Your task to perform on an android device: change notifications settings Image 0: 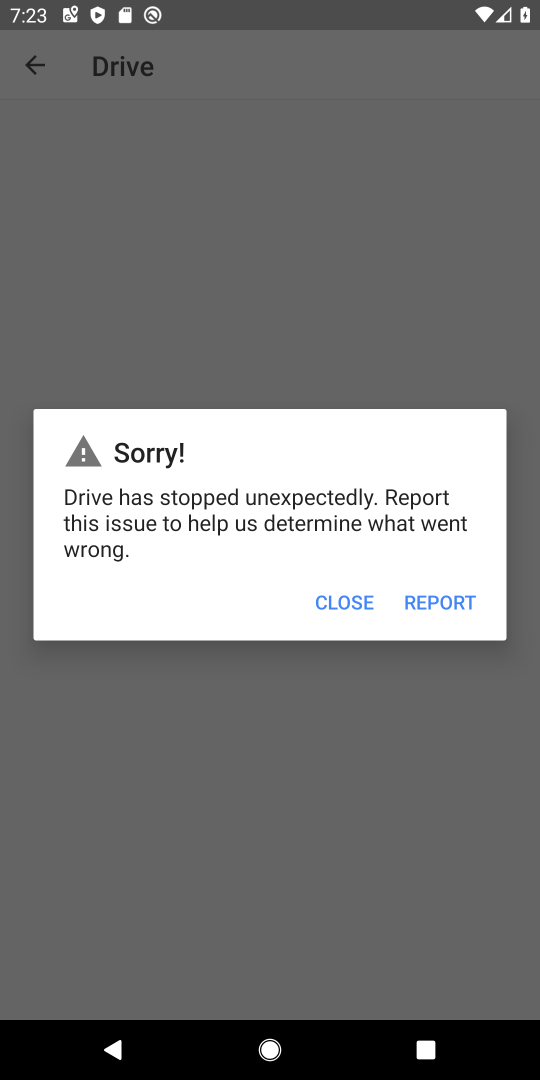
Step 0: press home button
Your task to perform on an android device: change notifications settings Image 1: 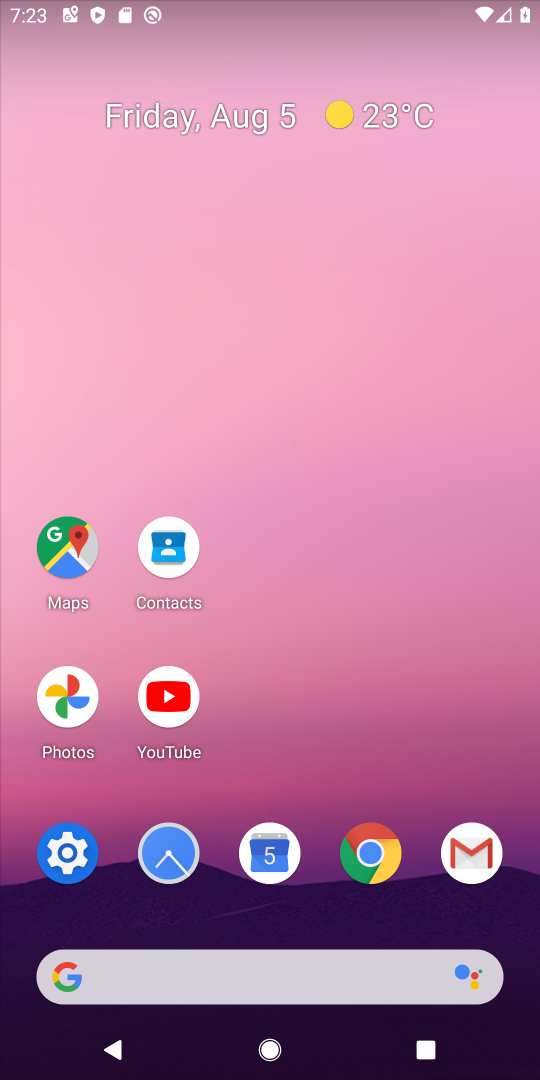
Step 1: click (67, 846)
Your task to perform on an android device: change notifications settings Image 2: 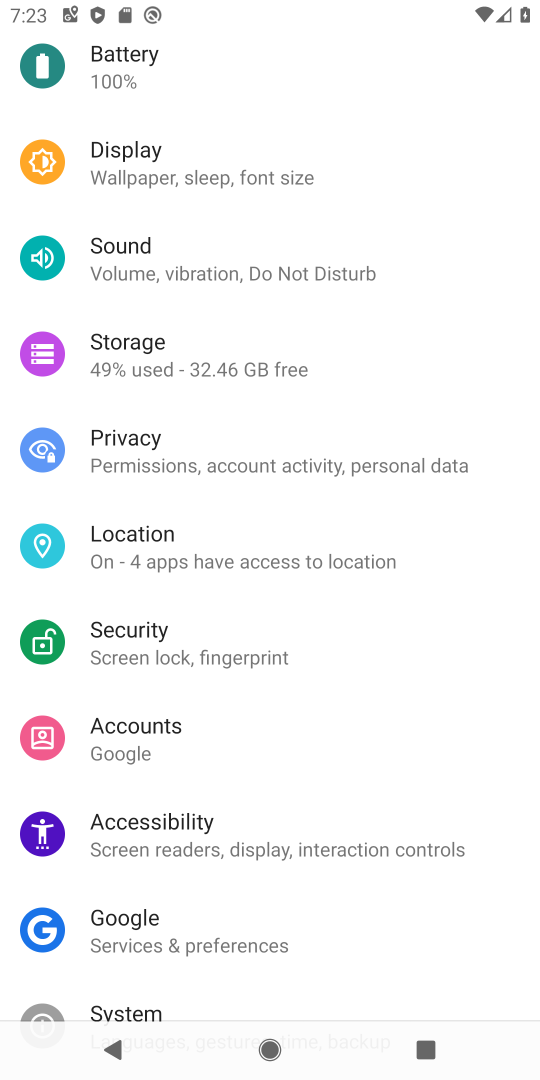
Step 2: drag from (329, 184) to (353, 724)
Your task to perform on an android device: change notifications settings Image 3: 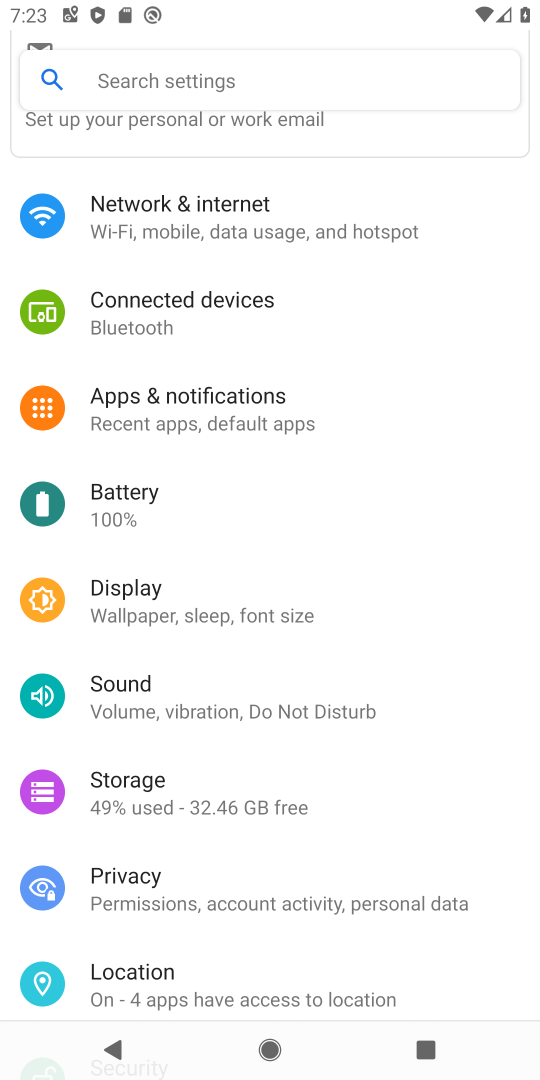
Step 3: click (190, 390)
Your task to perform on an android device: change notifications settings Image 4: 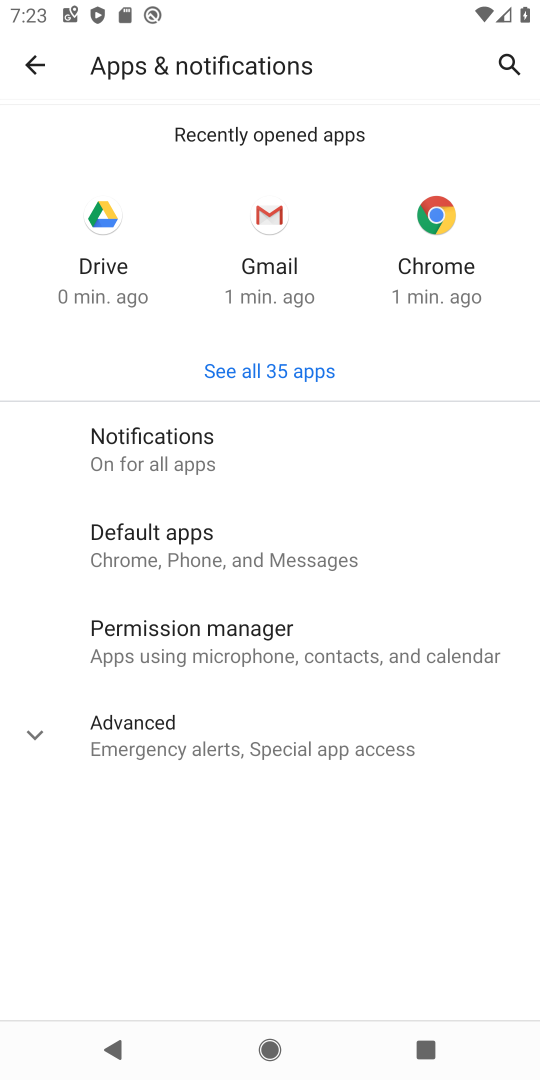
Step 4: click (162, 433)
Your task to perform on an android device: change notifications settings Image 5: 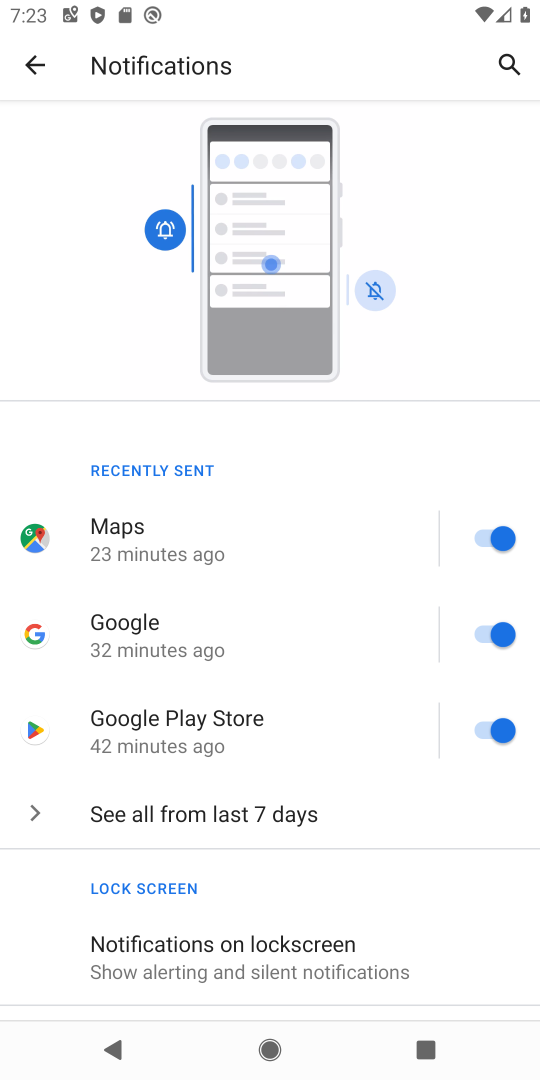
Step 5: click (204, 816)
Your task to perform on an android device: change notifications settings Image 6: 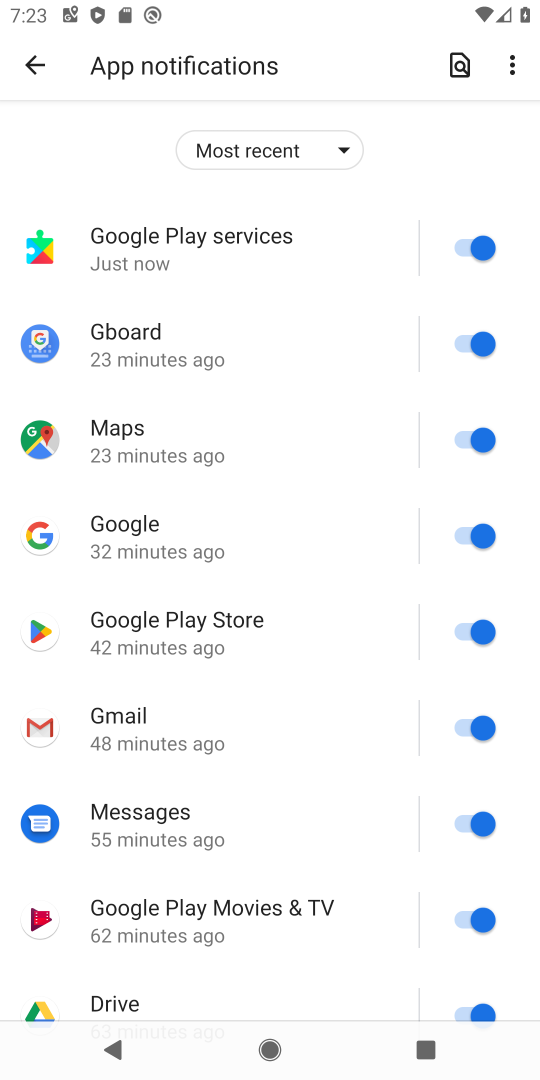
Step 6: click (340, 151)
Your task to perform on an android device: change notifications settings Image 7: 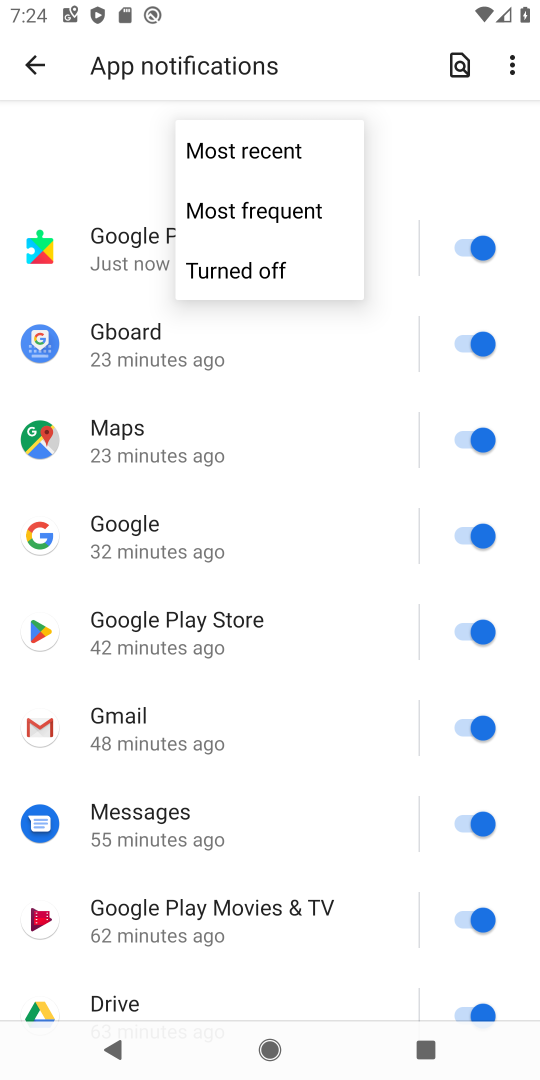
Step 7: click (242, 265)
Your task to perform on an android device: change notifications settings Image 8: 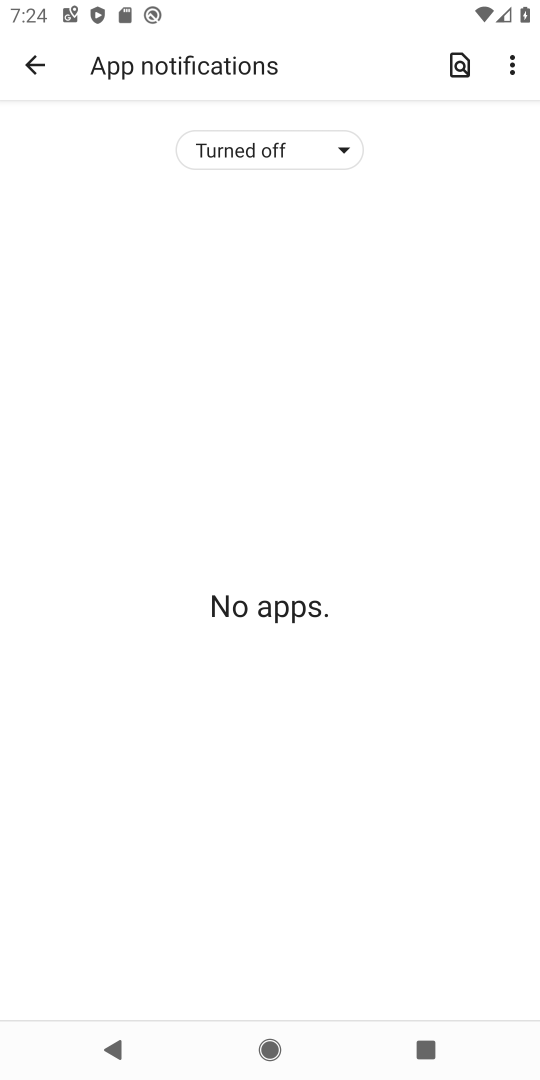
Step 8: task complete